Your task to perform on an android device: show emergency info Image 0: 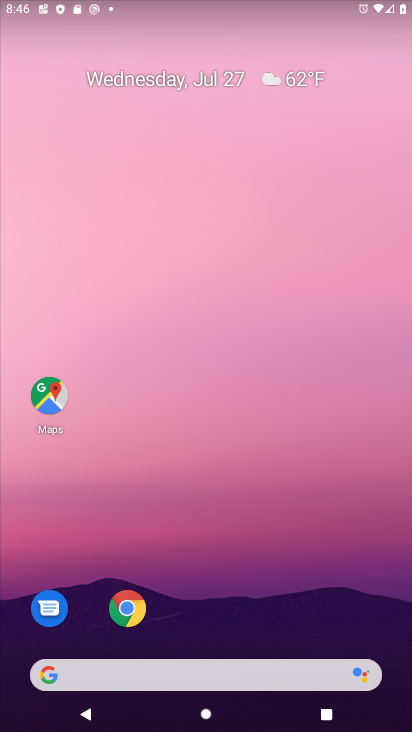
Step 0: drag from (279, 496) to (304, 61)
Your task to perform on an android device: show emergency info Image 1: 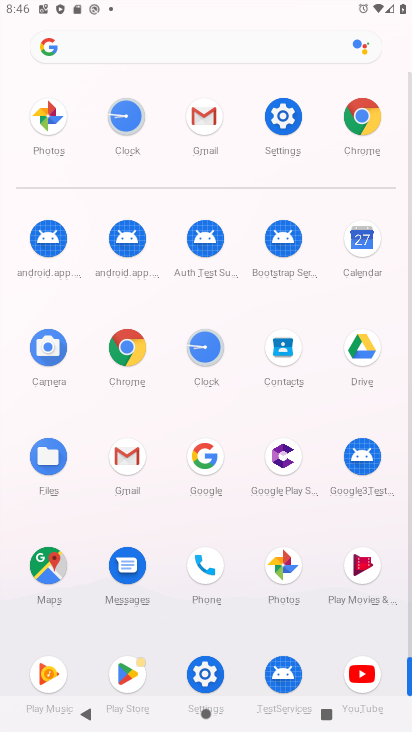
Step 1: click (280, 120)
Your task to perform on an android device: show emergency info Image 2: 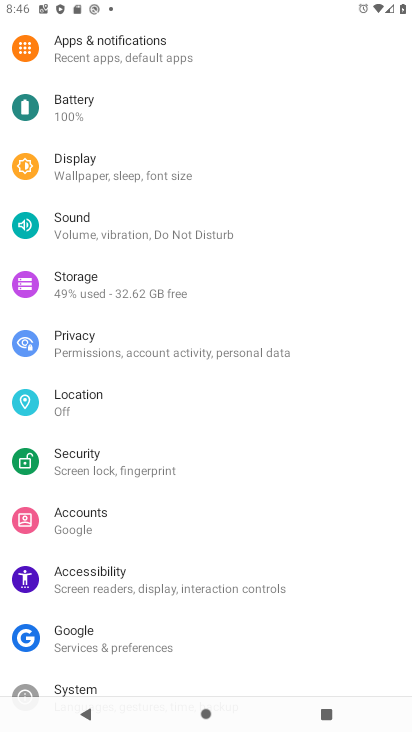
Step 2: drag from (185, 537) to (244, 188)
Your task to perform on an android device: show emergency info Image 3: 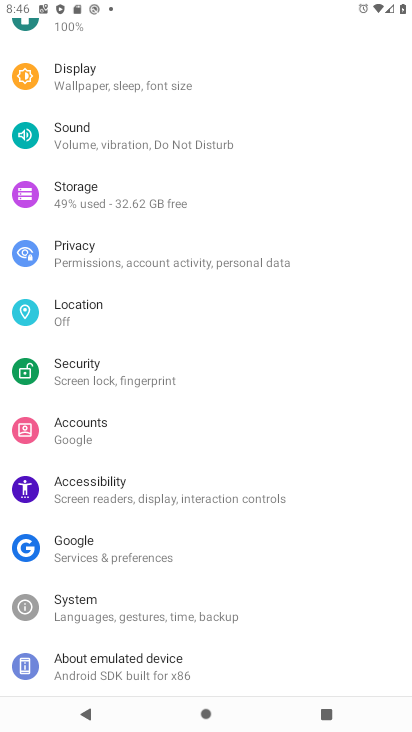
Step 3: click (122, 669)
Your task to perform on an android device: show emergency info Image 4: 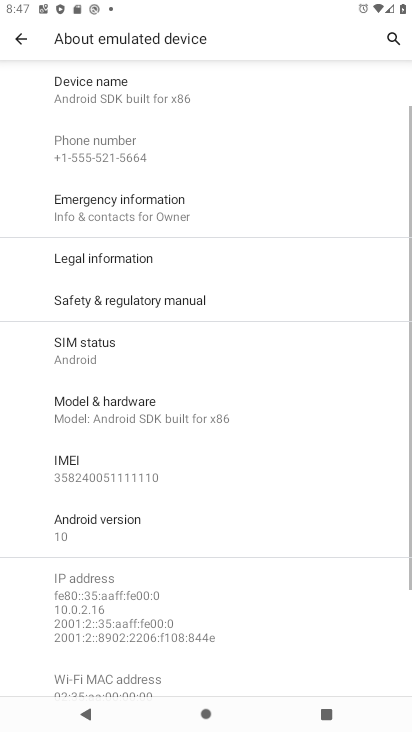
Step 4: task complete